Your task to perform on an android device: turn on priority inbox in the gmail app Image 0: 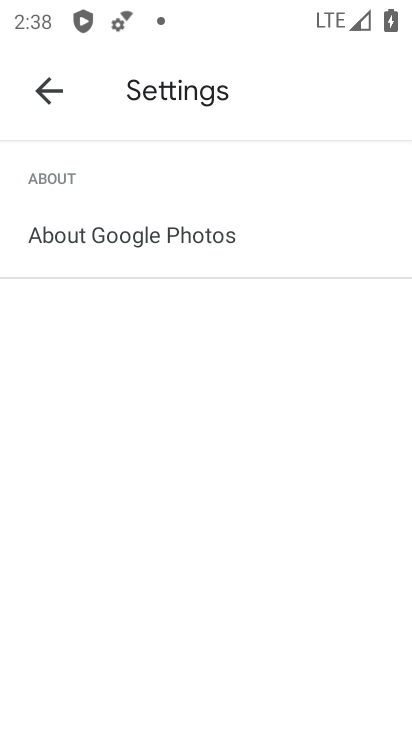
Step 0: press home button
Your task to perform on an android device: turn on priority inbox in the gmail app Image 1: 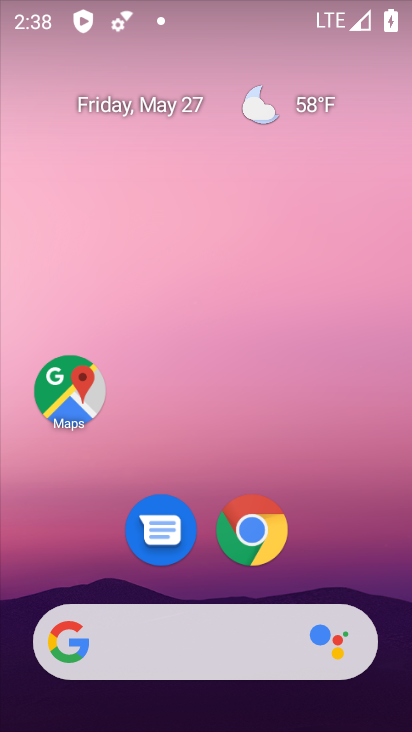
Step 1: drag from (64, 581) to (210, 163)
Your task to perform on an android device: turn on priority inbox in the gmail app Image 2: 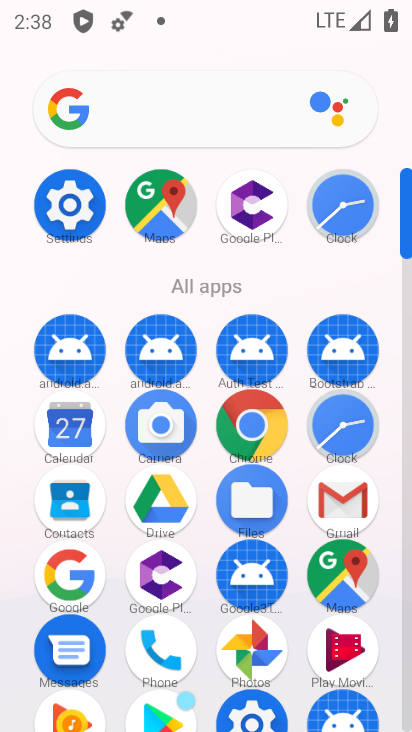
Step 2: drag from (243, 681) to (316, 331)
Your task to perform on an android device: turn on priority inbox in the gmail app Image 3: 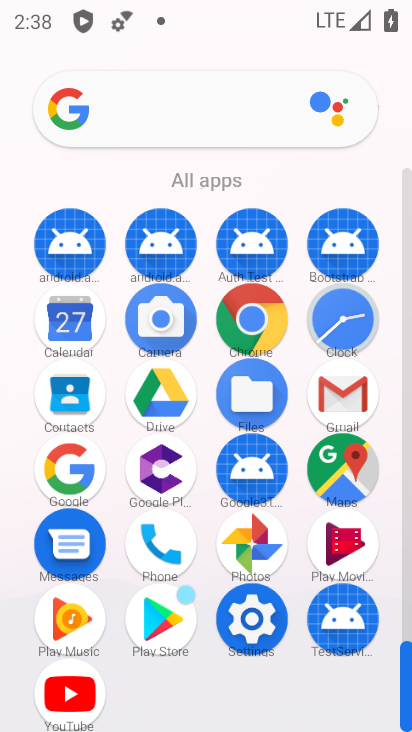
Step 3: click (346, 385)
Your task to perform on an android device: turn on priority inbox in the gmail app Image 4: 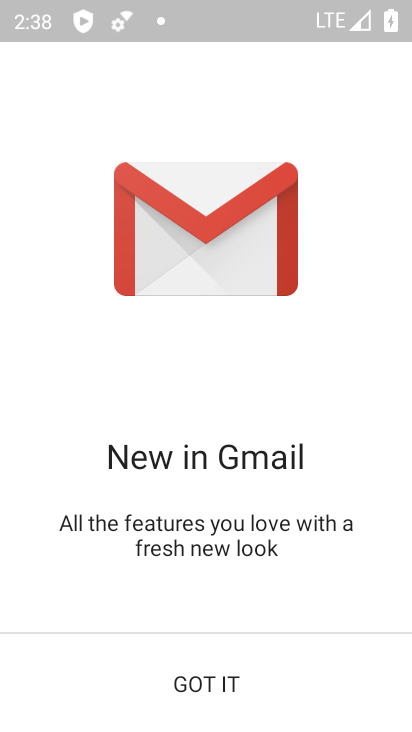
Step 4: click (175, 658)
Your task to perform on an android device: turn on priority inbox in the gmail app Image 5: 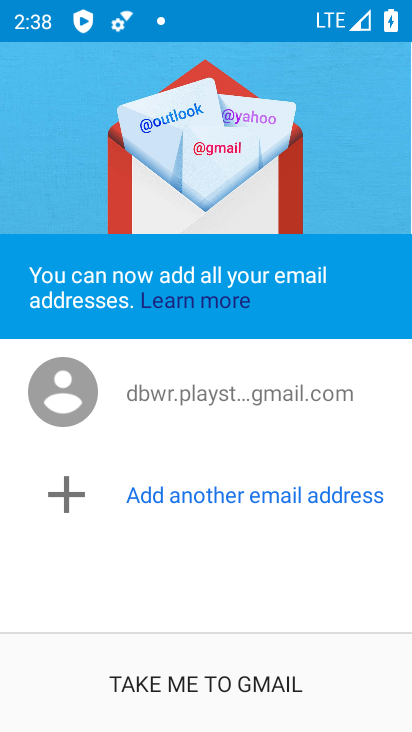
Step 5: click (251, 695)
Your task to perform on an android device: turn on priority inbox in the gmail app Image 6: 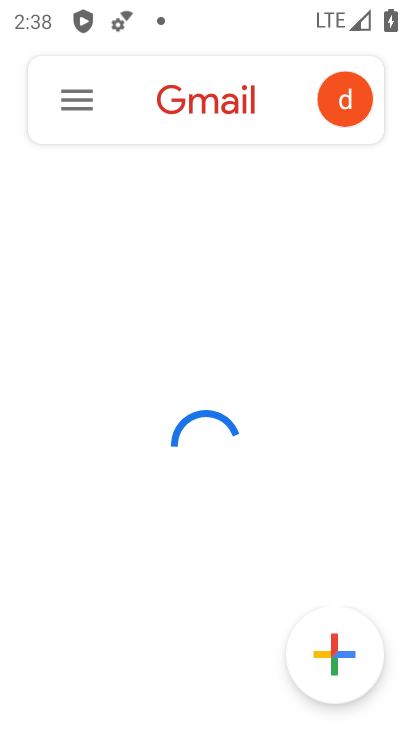
Step 6: click (98, 103)
Your task to perform on an android device: turn on priority inbox in the gmail app Image 7: 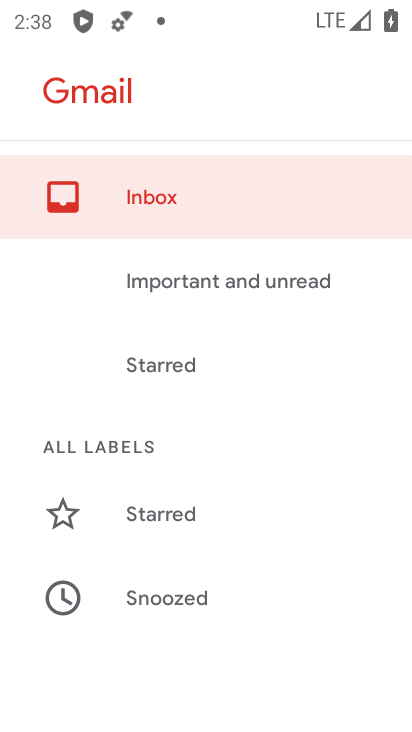
Step 7: drag from (151, 550) to (280, 90)
Your task to perform on an android device: turn on priority inbox in the gmail app Image 8: 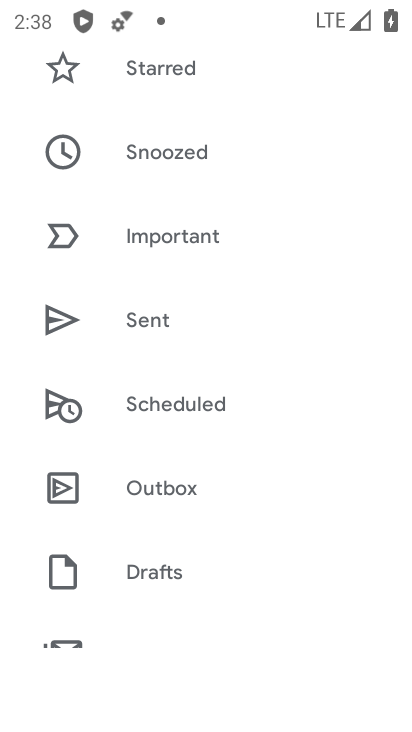
Step 8: drag from (251, 249) to (278, 46)
Your task to perform on an android device: turn on priority inbox in the gmail app Image 9: 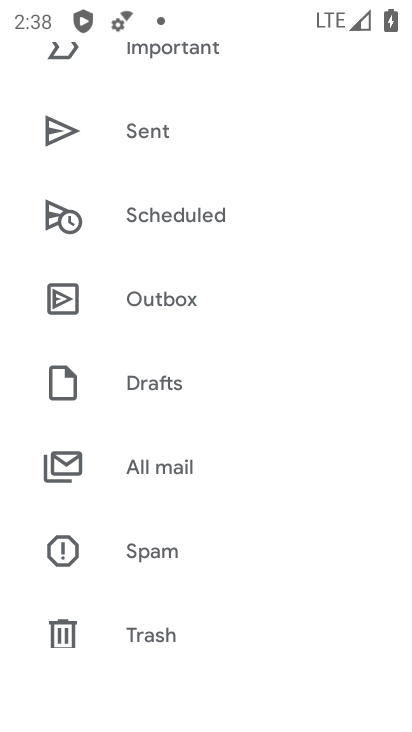
Step 9: drag from (181, 610) to (327, 117)
Your task to perform on an android device: turn on priority inbox in the gmail app Image 10: 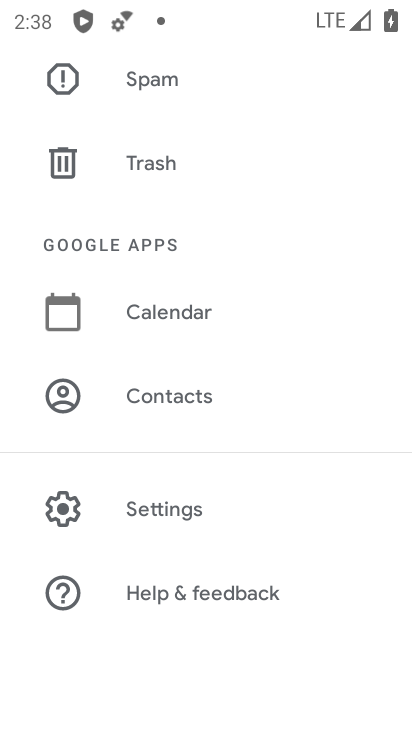
Step 10: click (189, 513)
Your task to perform on an android device: turn on priority inbox in the gmail app Image 11: 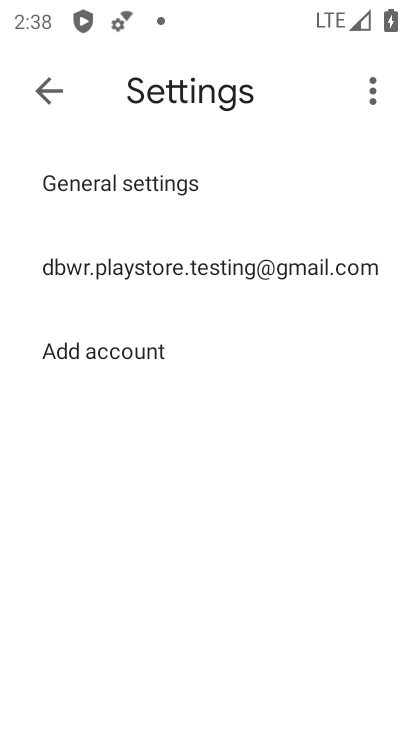
Step 11: click (289, 282)
Your task to perform on an android device: turn on priority inbox in the gmail app Image 12: 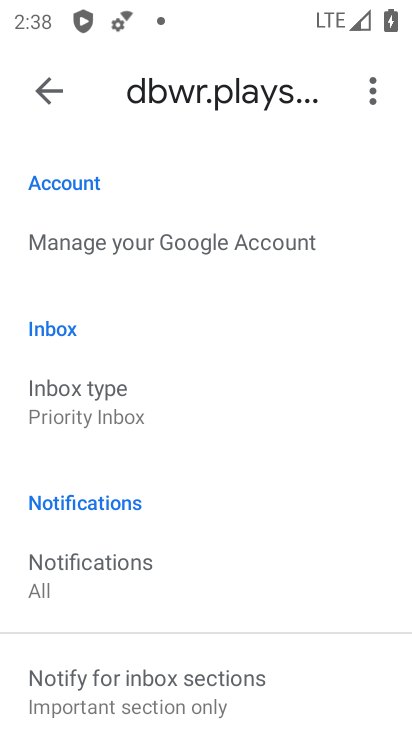
Step 12: task complete